Your task to perform on an android device: Go to network settings Image 0: 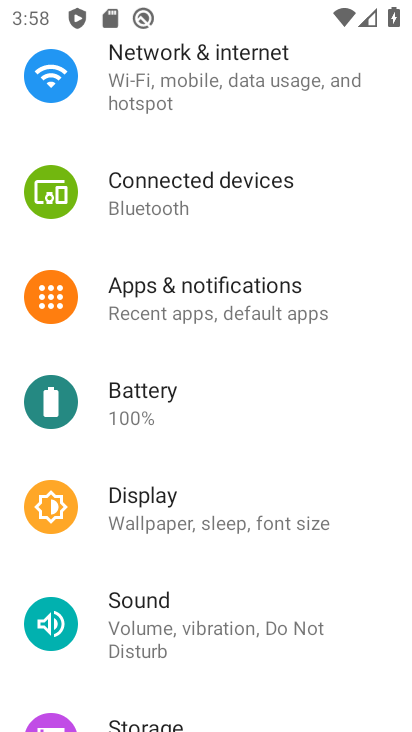
Step 0: click (229, 90)
Your task to perform on an android device: Go to network settings Image 1: 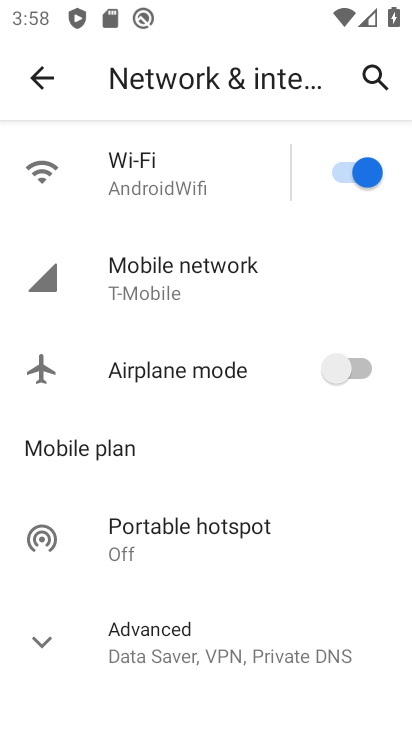
Step 1: task complete